Your task to perform on an android device: What's the latest news in planetary science? Image 0: 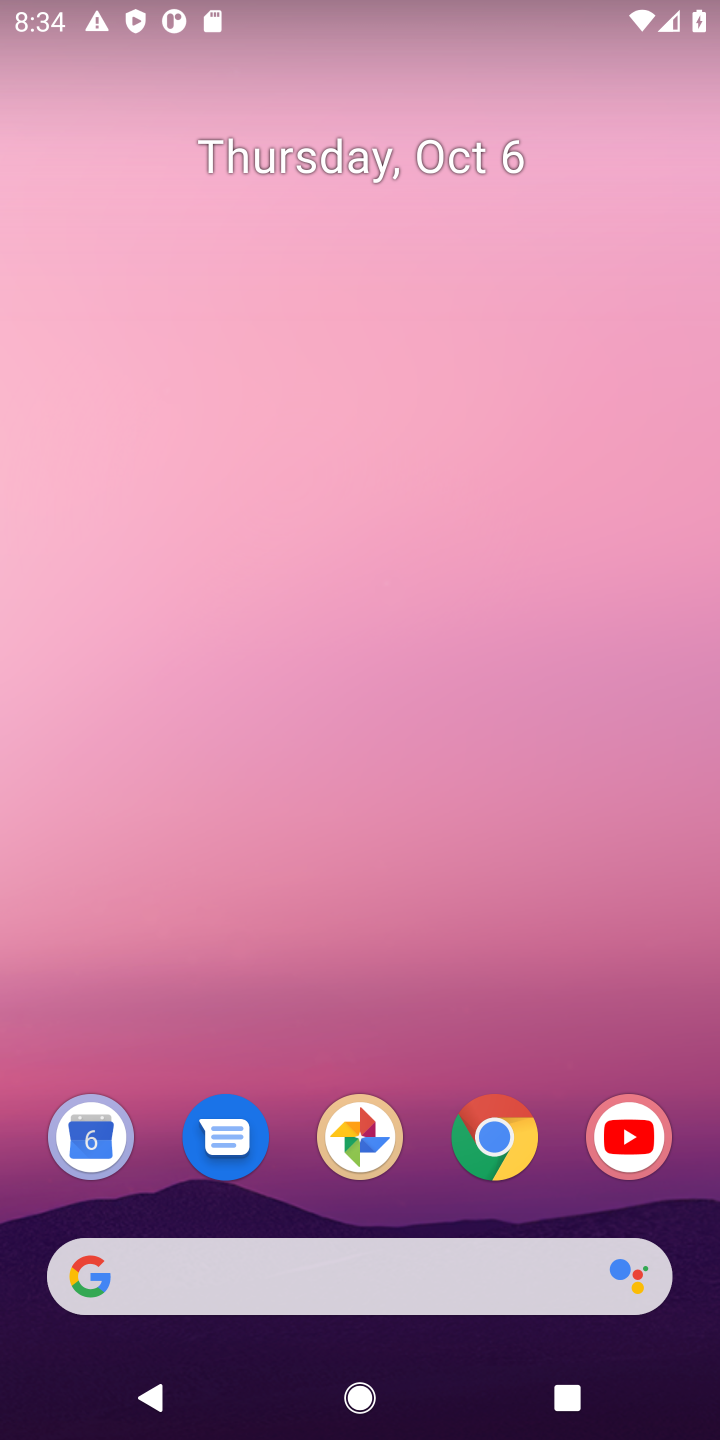
Step 0: click (495, 1158)
Your task to perform on an android device: What's the latest news in planetary science? Image 1: 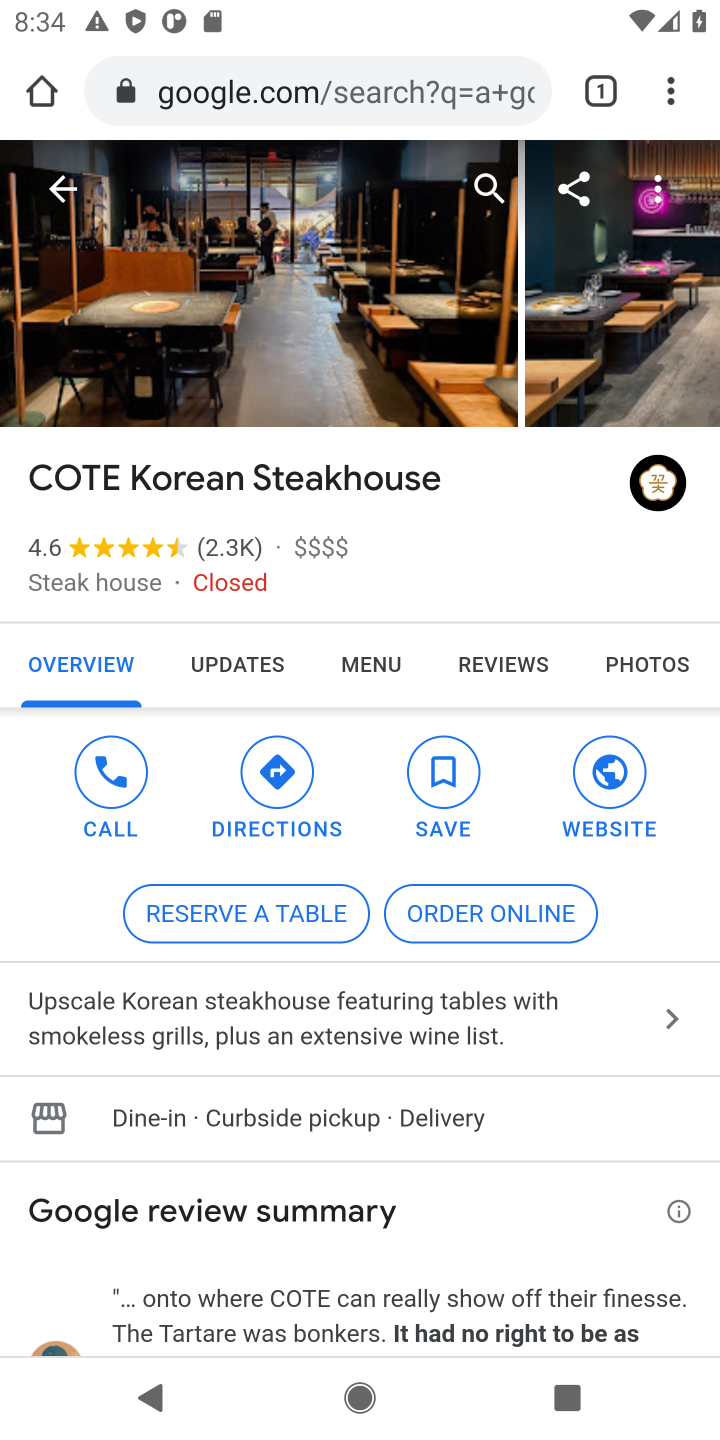
Step 1: click (540, 90)
Your task to perform on an android device: What's the latest news in planetary science? Image 2: 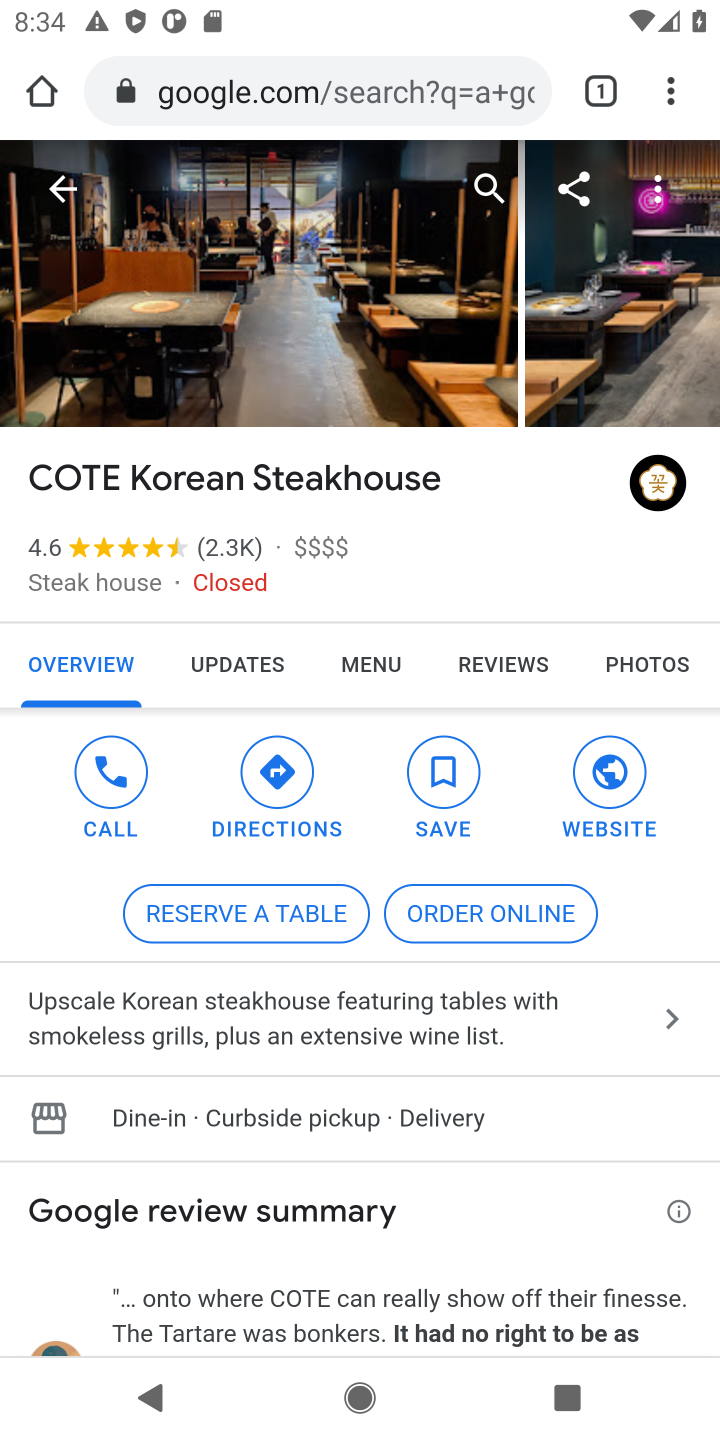
Step 2: click (489, 93)
Your task to perform on an android device: What's the latest news in planetary science? Image 3: 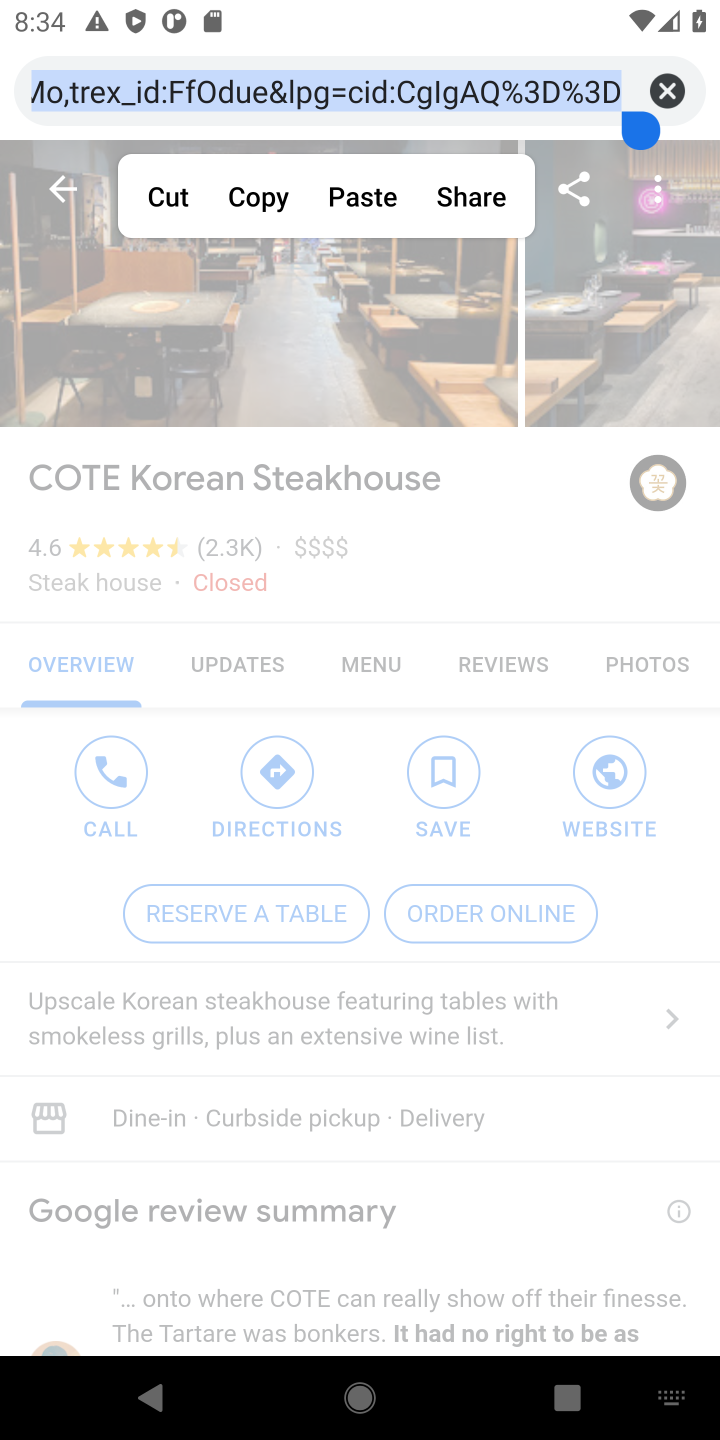
Step 3: click (670, 90)
Your task to perform on an android device: What's the latest news in planetary science? Image 4: 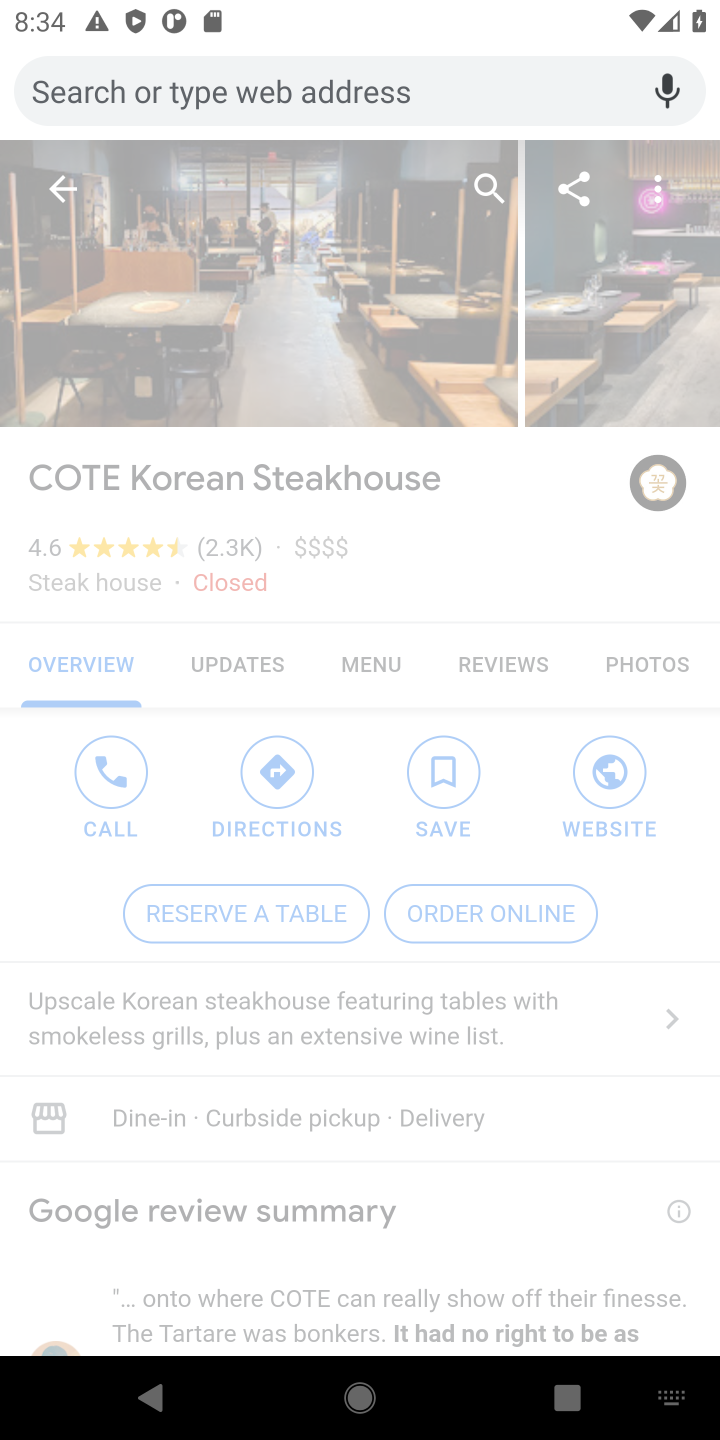
Step 4: click (301, 90)
Your task to perform on an android device: What's the latest news in planetary science? Image 5: 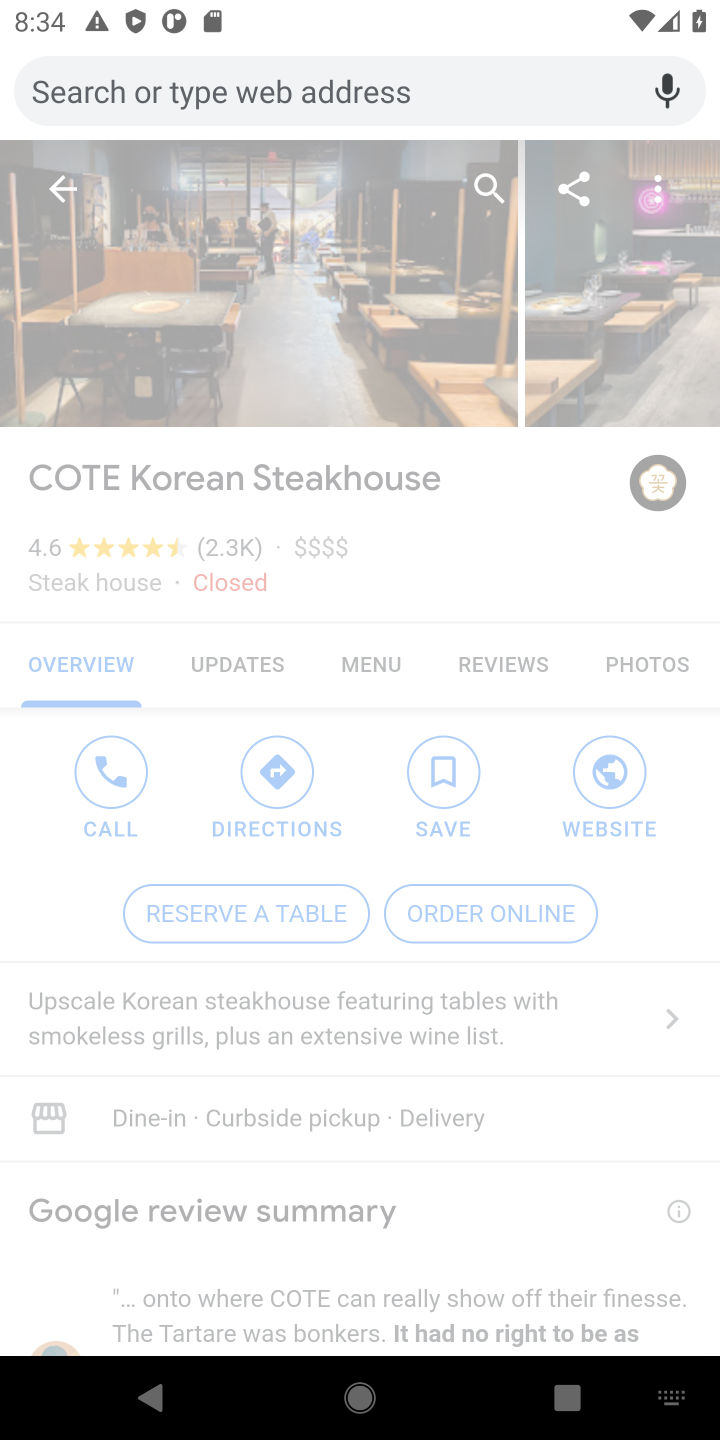
Step 5: type "What's the latest news in planetary science?"
Your task to perform on an android device: What's the latest news in planetary science? Image 6: 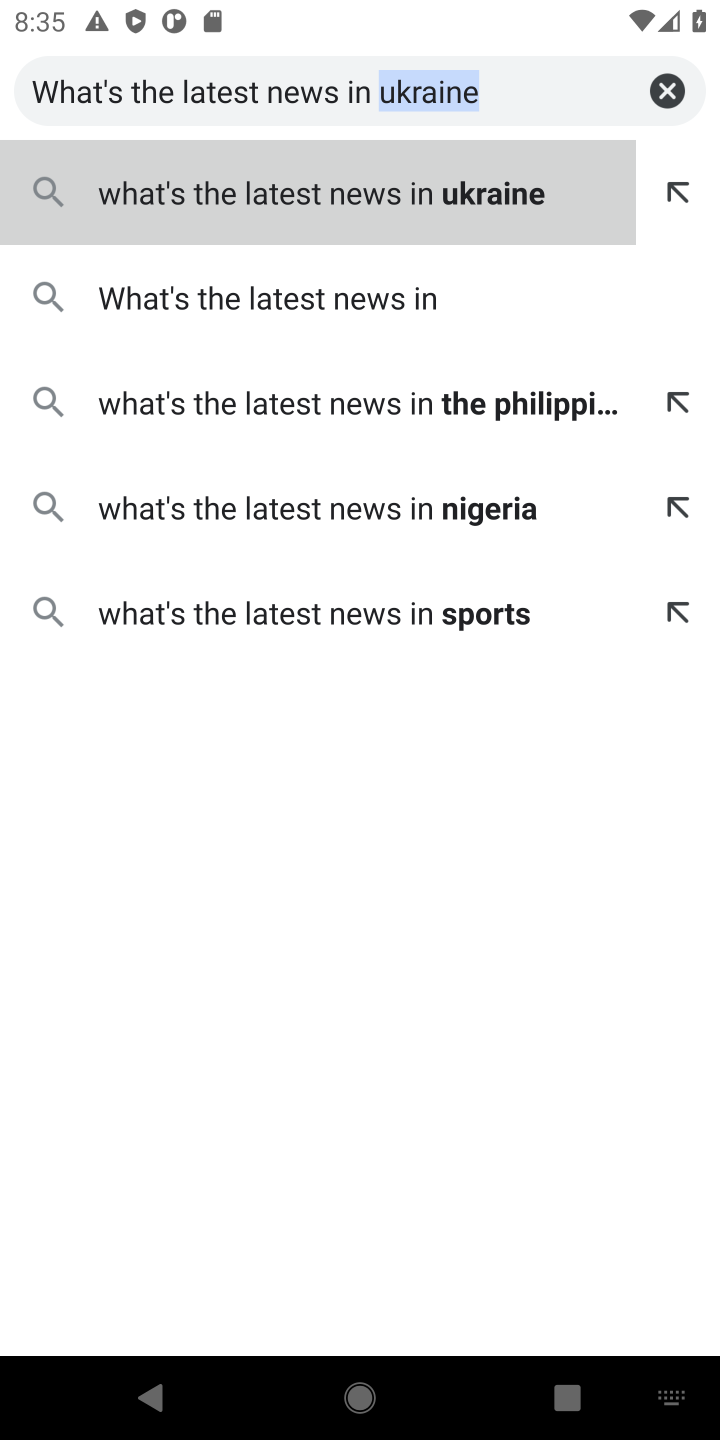
Step 6: click (662, 95)
Your task to perform on an android device: What's the latest news in planetary science? Image 7: 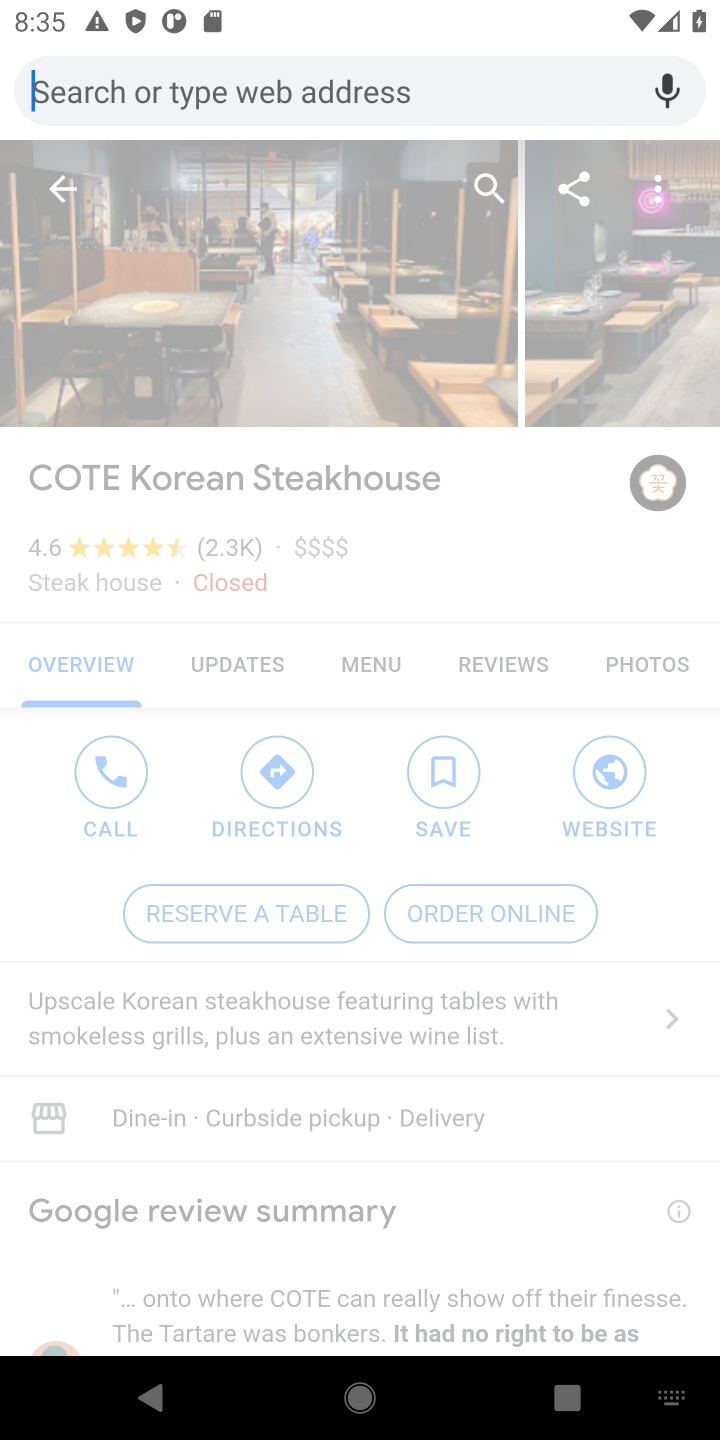
Step 7: type " latest news in planetary science"
Your task to perform on an android device: What's the latest news in planetary science? Image 8: 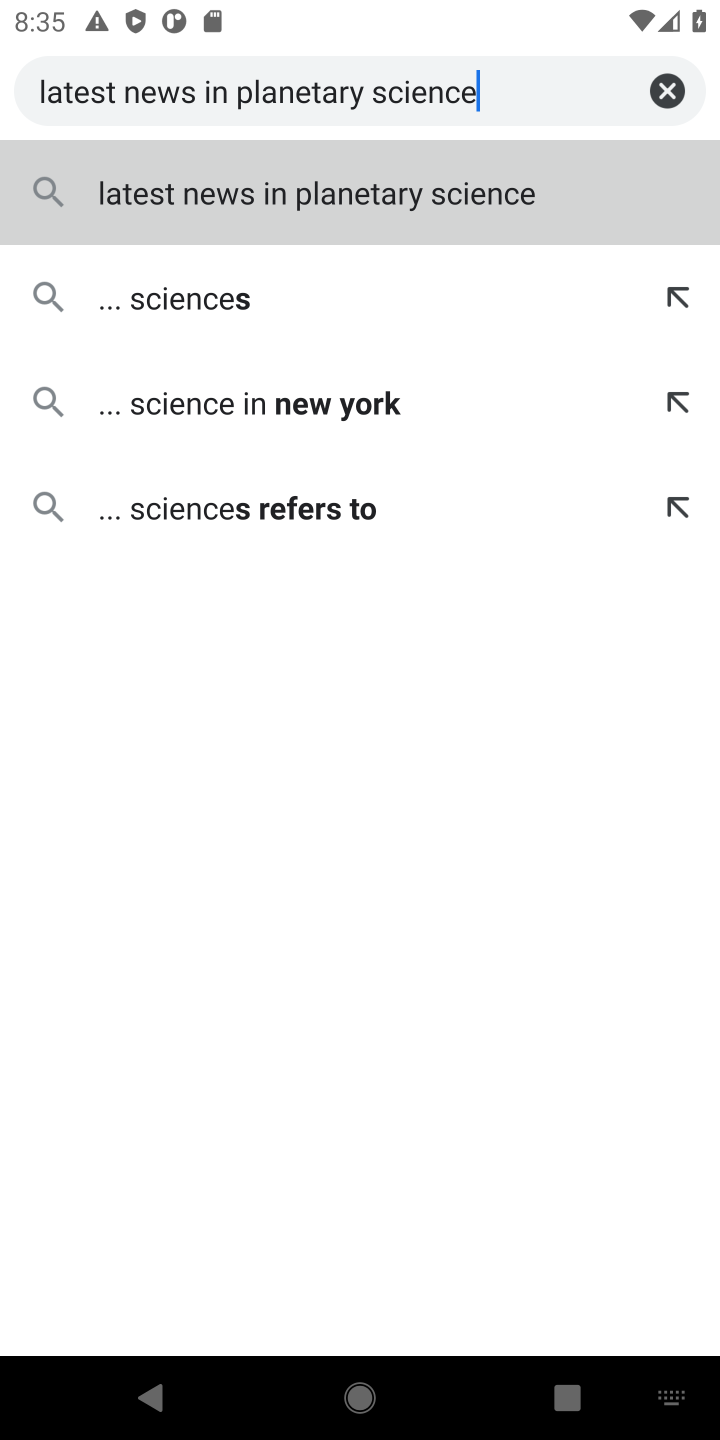
Step 8: click (376, 204)
Your task to perform on an android device: What's the latest news in planetary science? Image 9: 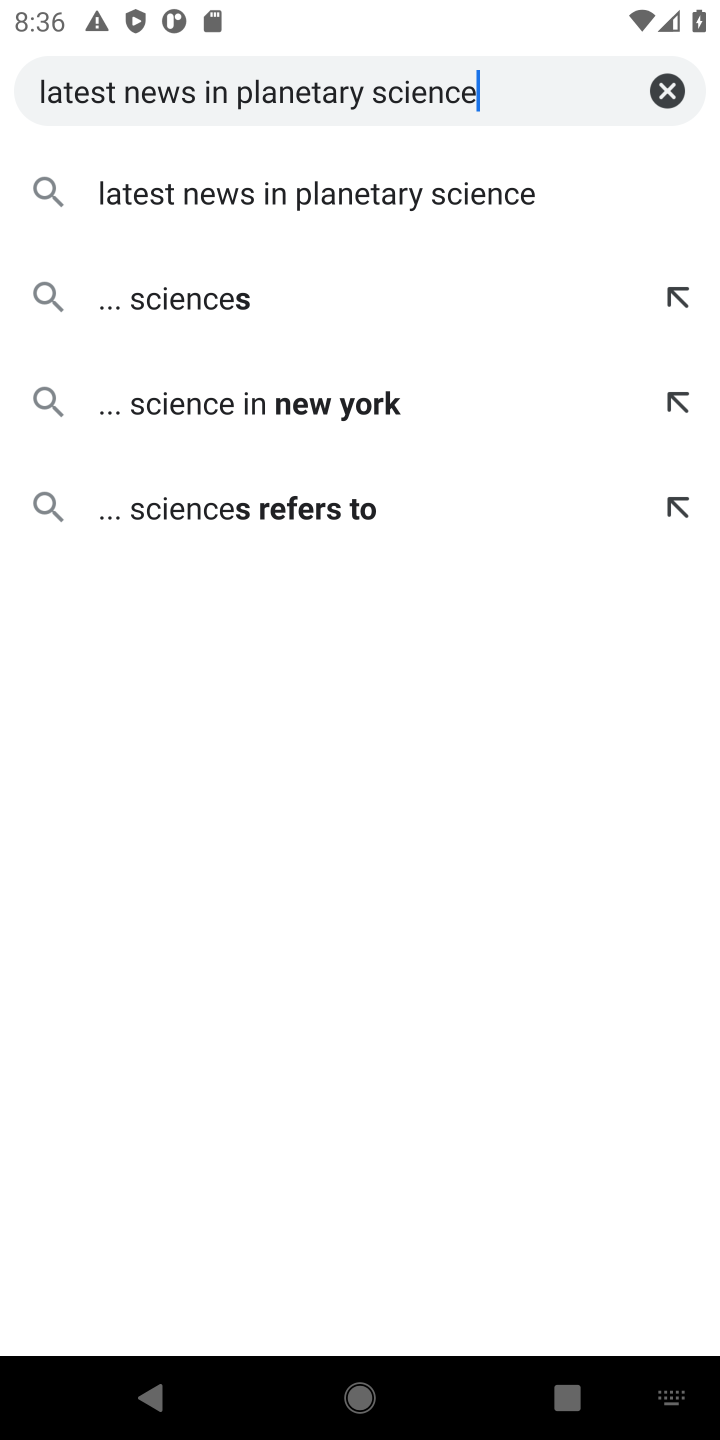
Step 9: click (319, 196)
Your task to perform on an android device: What's the latest news in planetary science? Image 10: 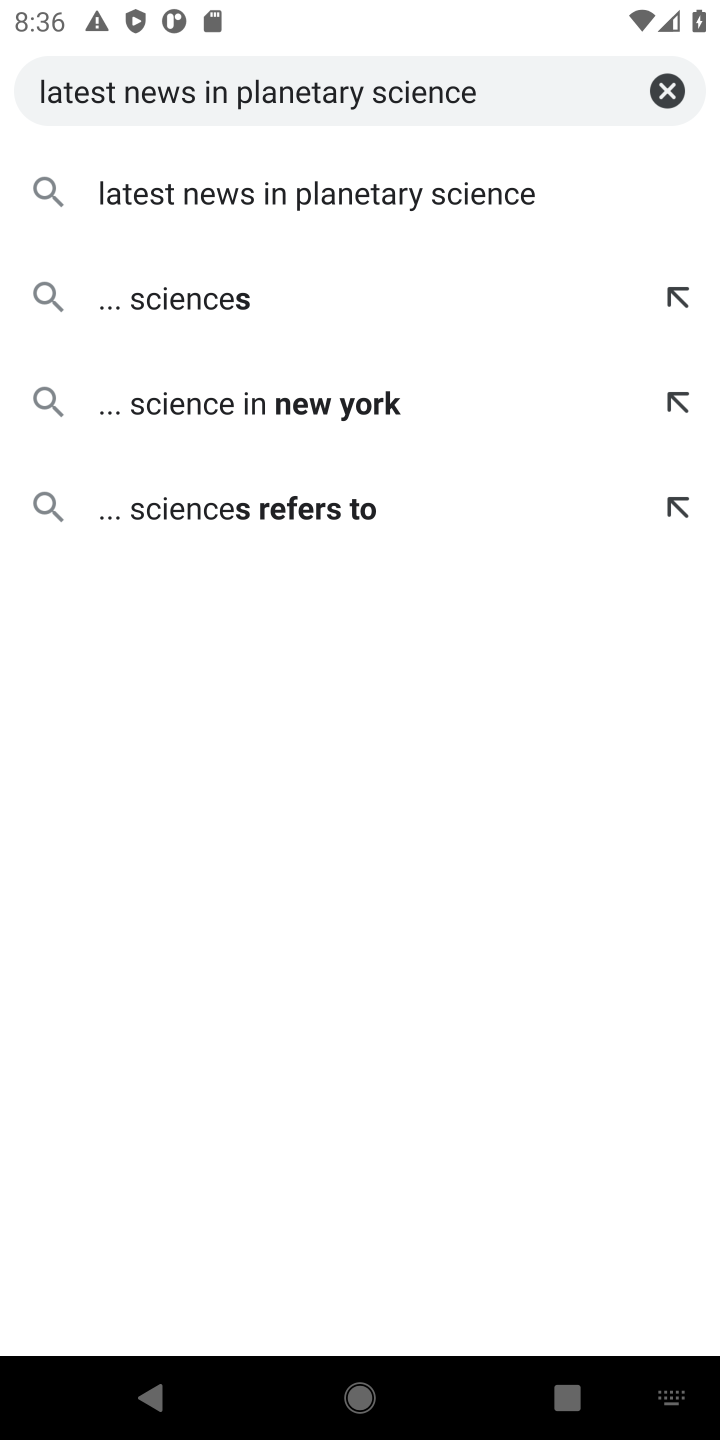
Step 10: click (257, 197)
Your task to perform on an android device: What's the latest news in planetary science? Image 11: 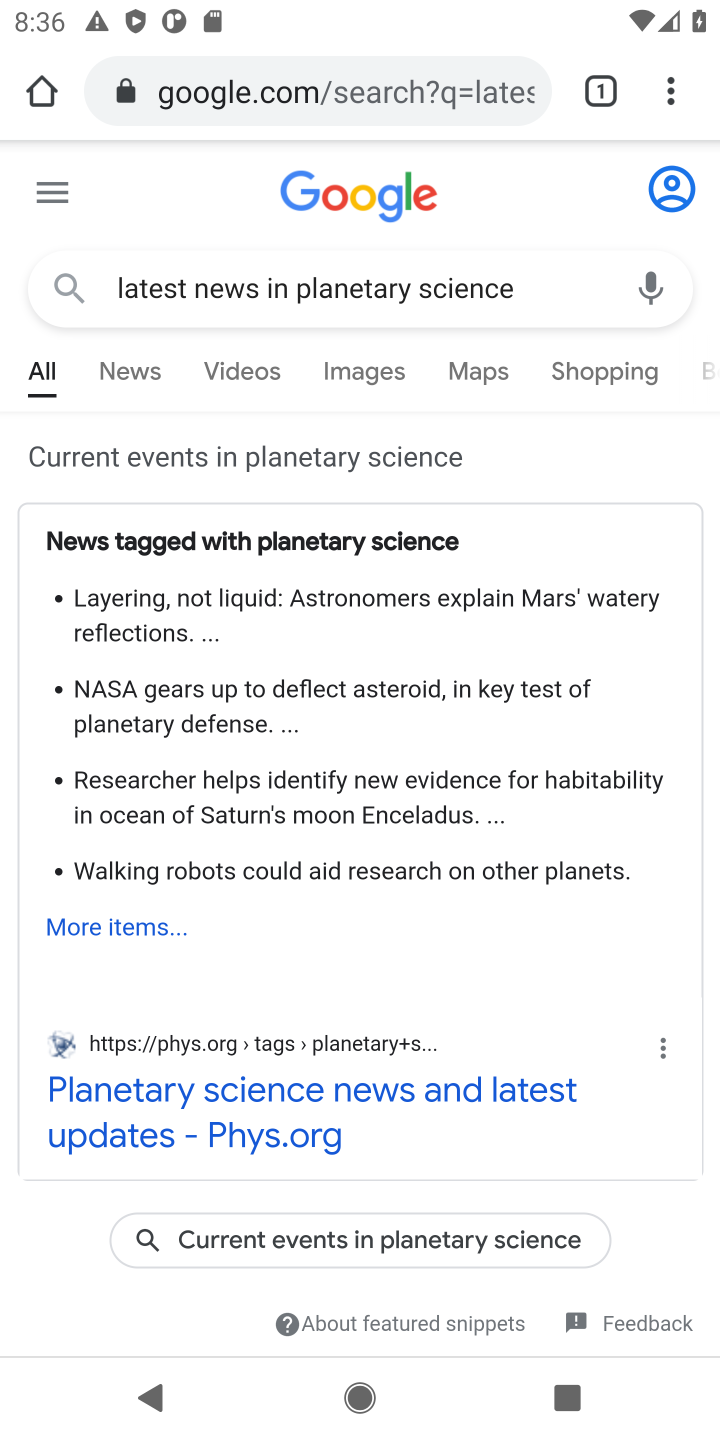
Step 11: drag from (440, 637) to (442, 371)
Your task to perform on an android device: What's the latest news in planetary science? Image 12: 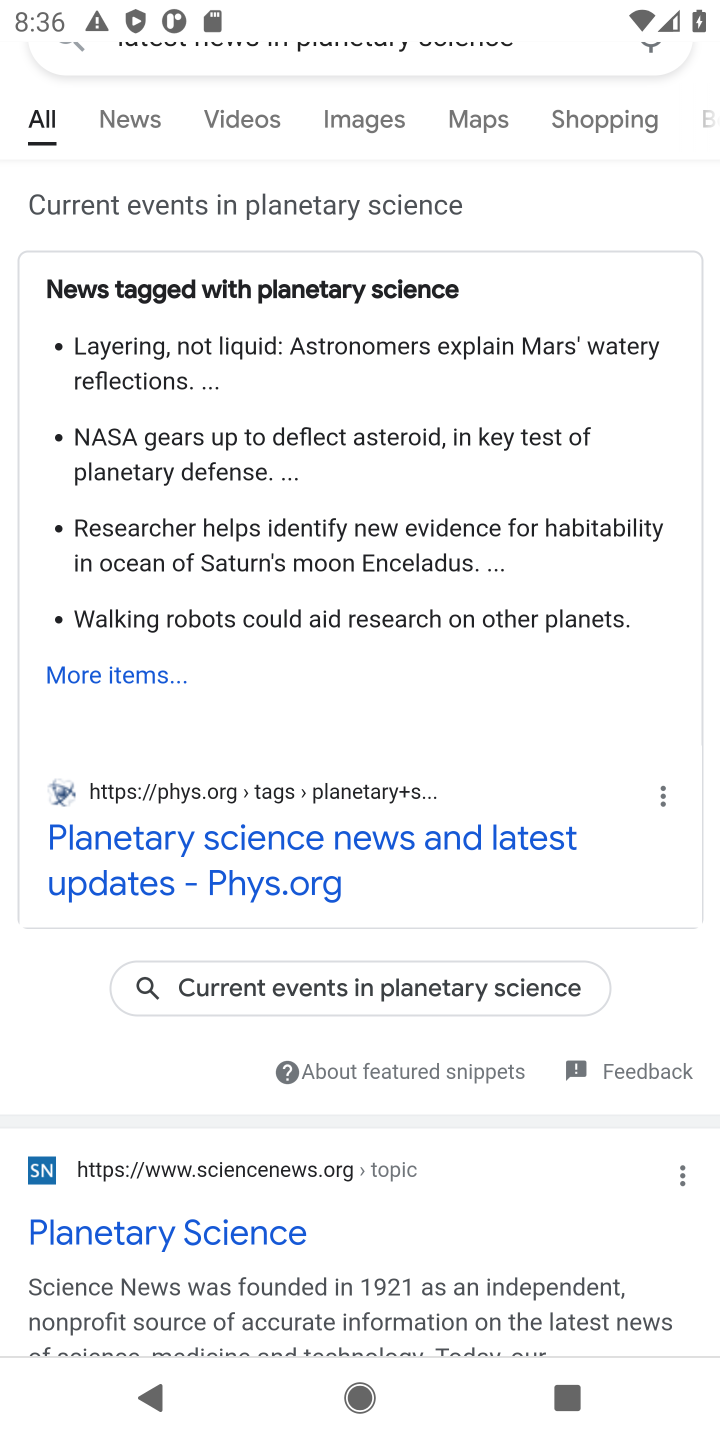
Step 12: click (133, 1238)
Your task to perform on an android device: What's the latest news in planetary science? Image 13: 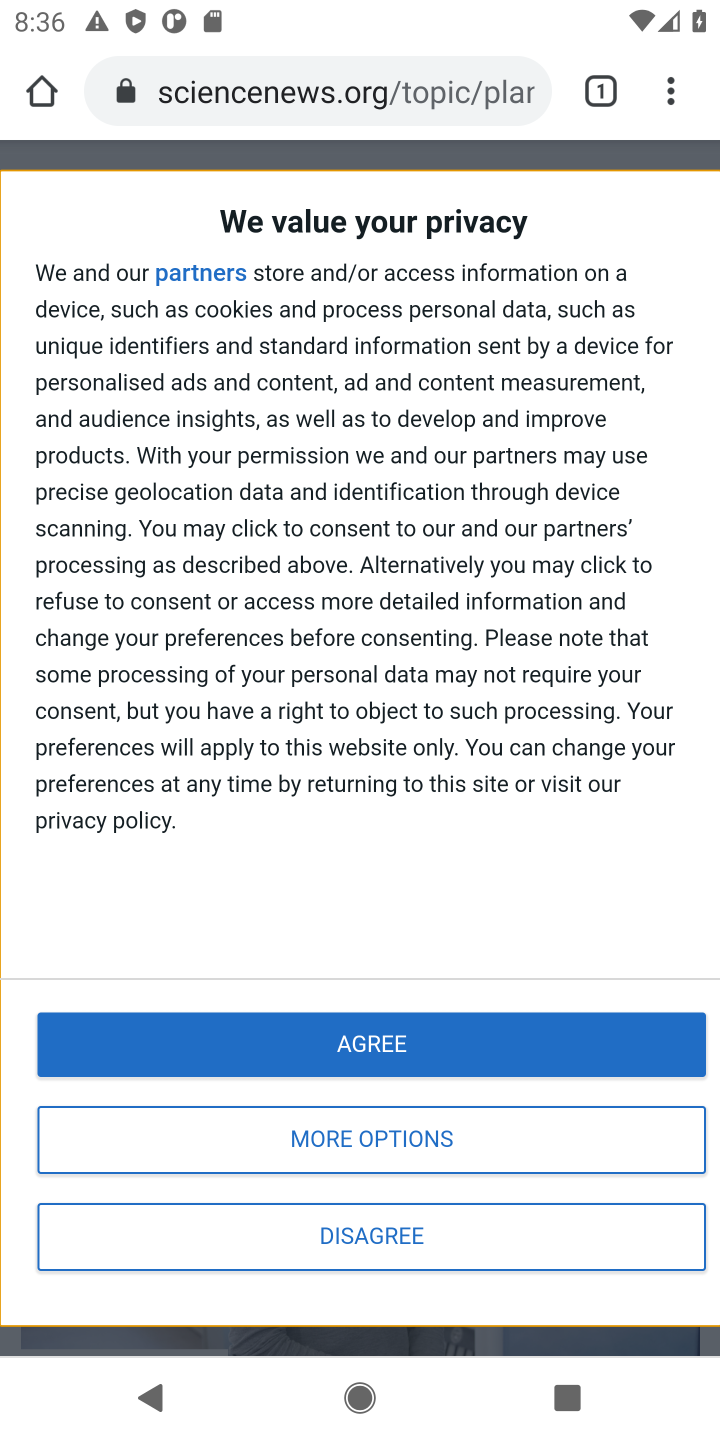
Step 13: task complete